Your task to perform on an android device: install app "Lyft - Rideshare, Bikes, Scooters & Transit" Image 0: 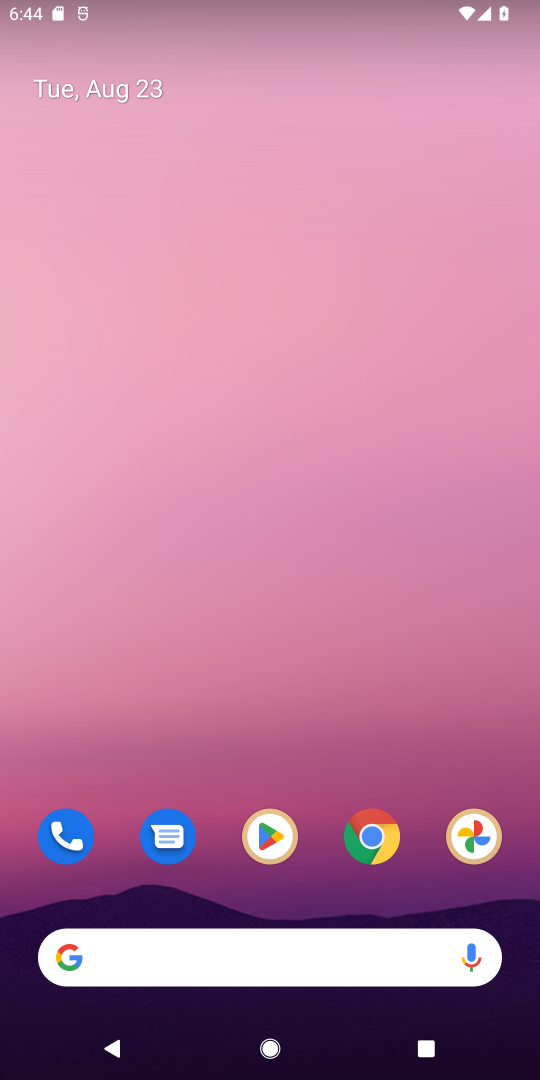
Step 0: press home button
Your task to perform on an android device: install app "Lyft - Rideshare, Bikes, Scooters & Transit" Image 1: 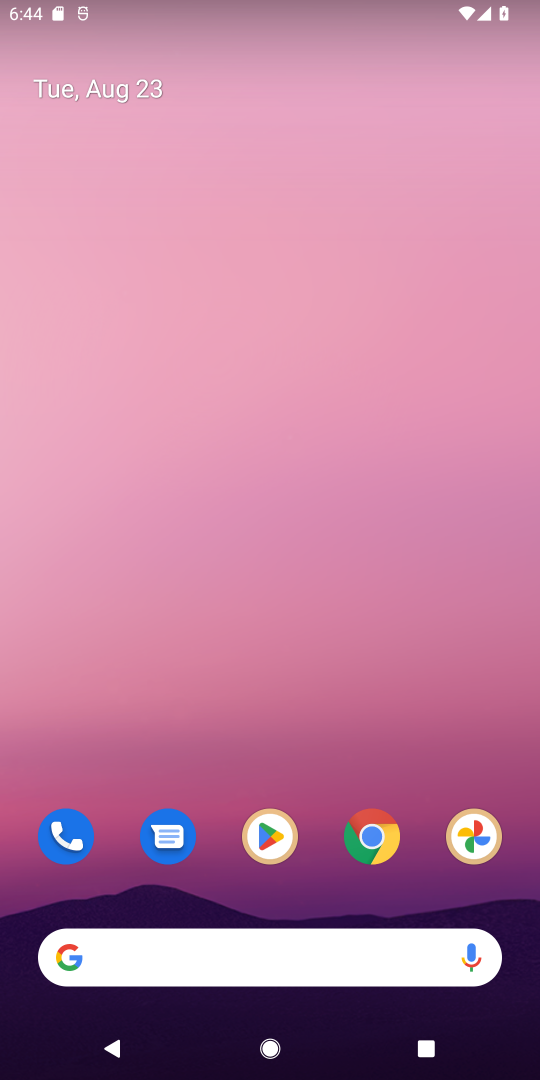
Step 1: press home button
Your task to perform on an android device: install app "Lyft - Rideshare, Bikes, Scooters & Transit" Image 2: 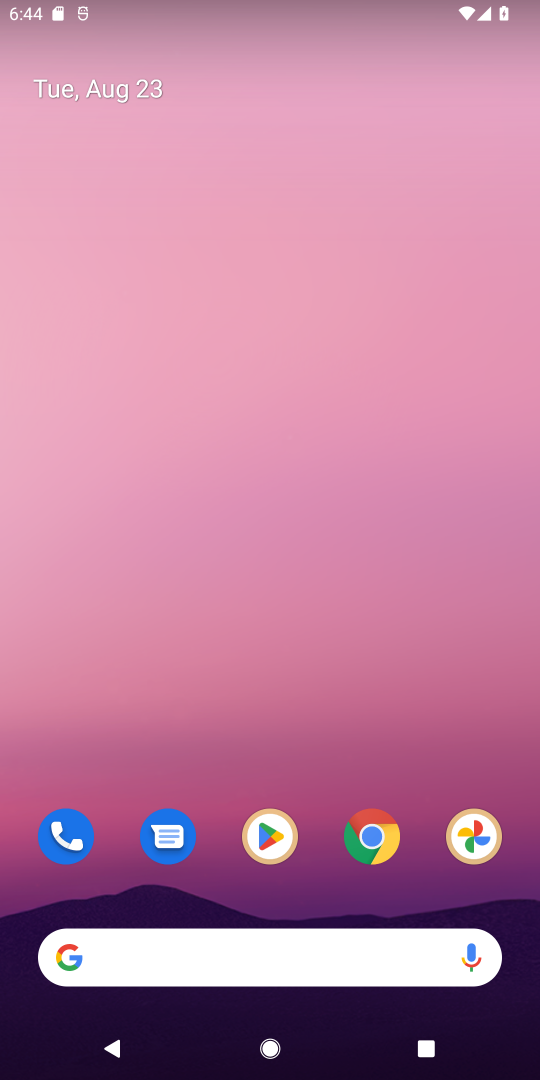
Step 2: click (271, 831)
Your task to perform on an android device: install app "Lyft - Rideshare, Bikes, Scooters & Transit" Image 3: 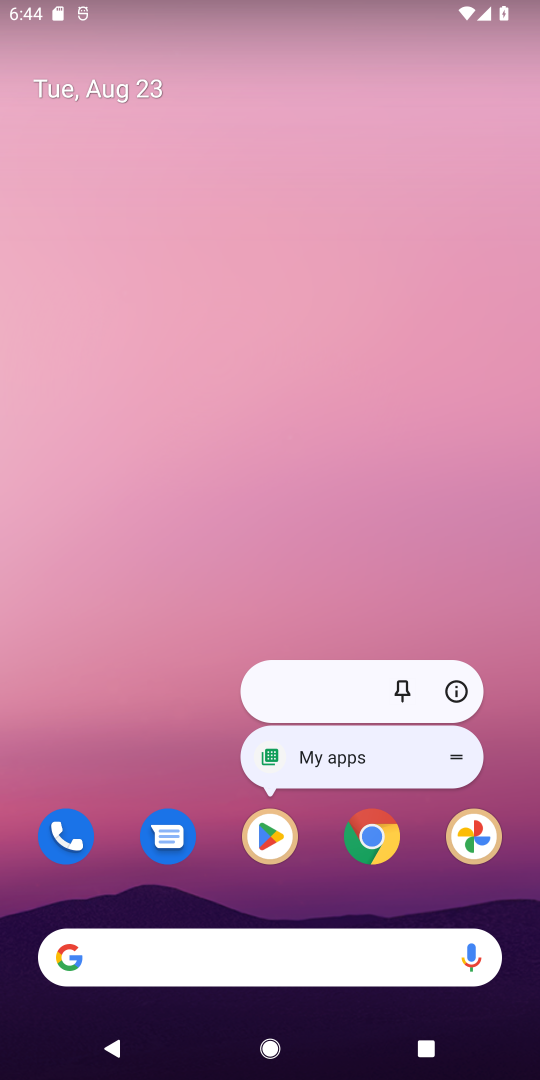
Step 3: click (271, 834)
Your task to perform on an android device: install app "Lyft - Rideshare, Bikes, Scooters & Transit" Image 4: 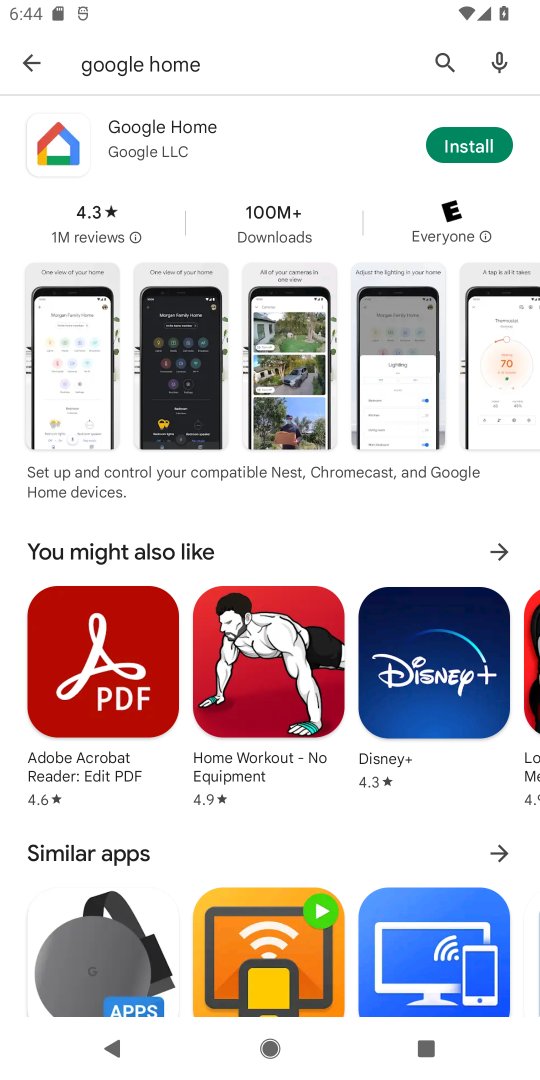
Step 4: click (442, 61)
Your task to perform on an android device: install app "Lyft - Rideshare, Bikes, Scooters & Transit" Image 5: 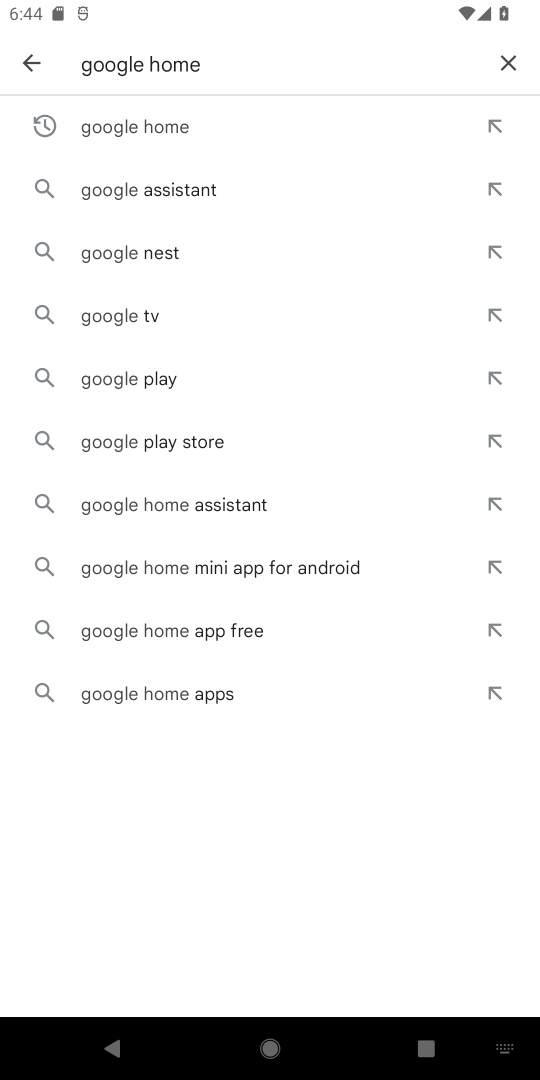
Step 5: click (490, 55)
Your task to perform on an android device: install app "Lyft - Rideshare, Bikes, Scooters & Transit" Image 6: 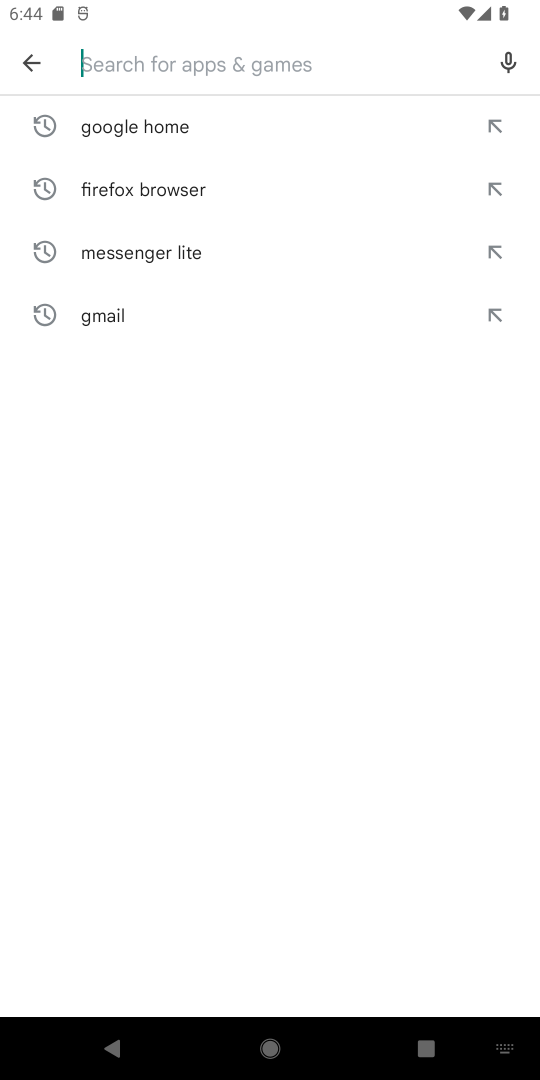
Step 6: type "Lyft - Rideshare, Bikes, Scooters & Transit"
Your task to perform on an android device: install app "Lyft - Rideshare, Bikes, Scooters & Transit" Image 7: 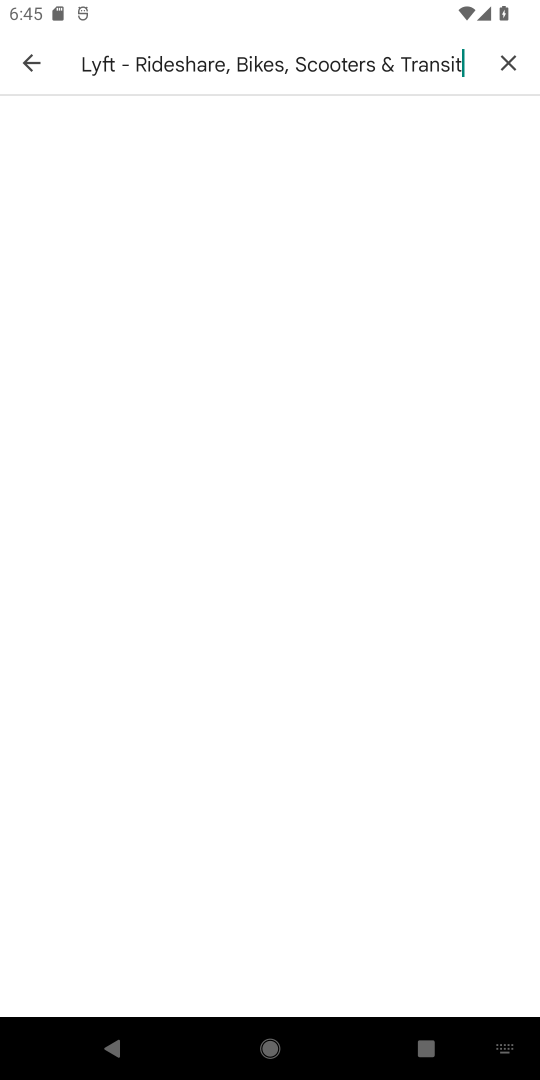
Step 7: task complete